Your task to perform on an android device: star an email in the gmail app Image 0: 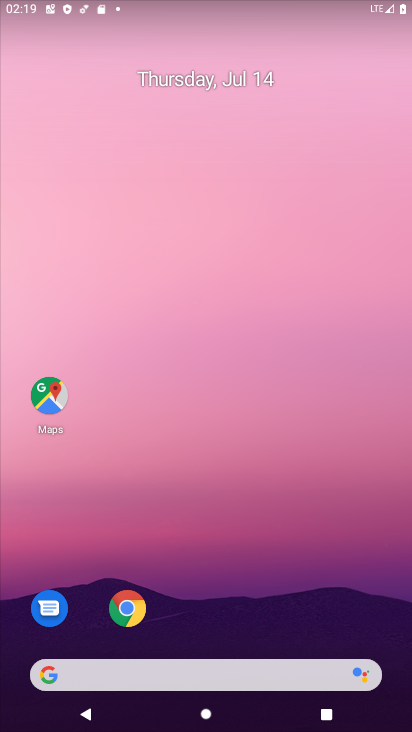
Step 0: drag from (67, 496) to (299, 62)
Your task to perform on an android device: star an email in the gmail app Image 1: 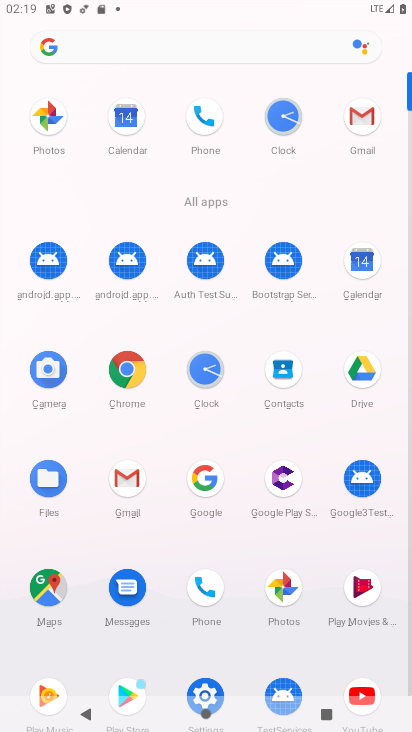
Step 1: click (133, 467)
Your task to perform on an android device: star an email in the gmail app Image 2: 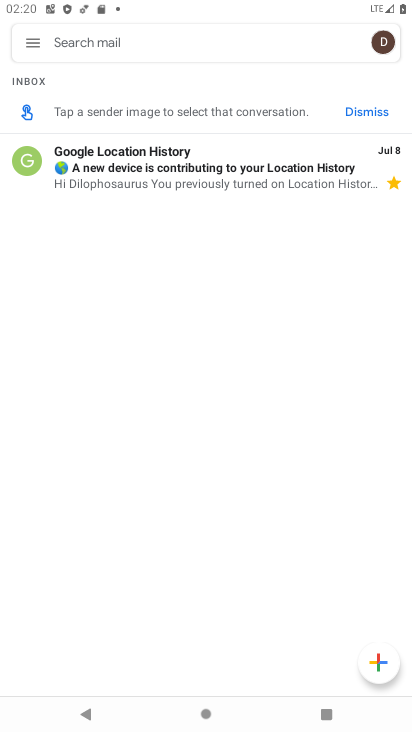
Step 2: task complete